Your task to perform on an android device: turn off data saver in the chrome app Image 0: 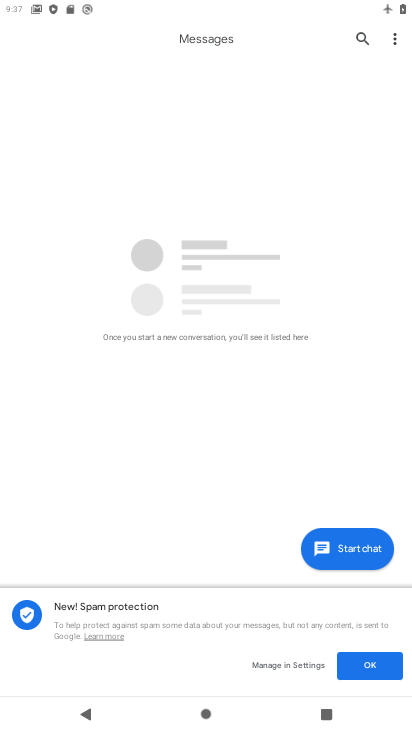
Step 0: press home button
Your task to perform on an android device: turn off data saver in the chrome app Image 1: 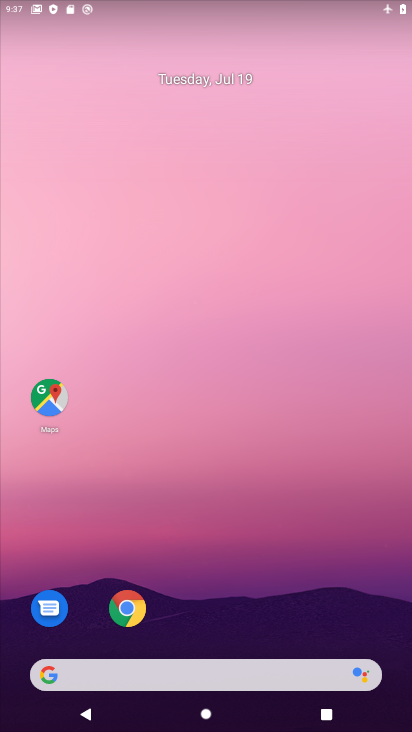
Step 1: drag from (295, 597) to (258, 108)
Your task to perform on an android device: turn off data saver in the chrome app Image 2: 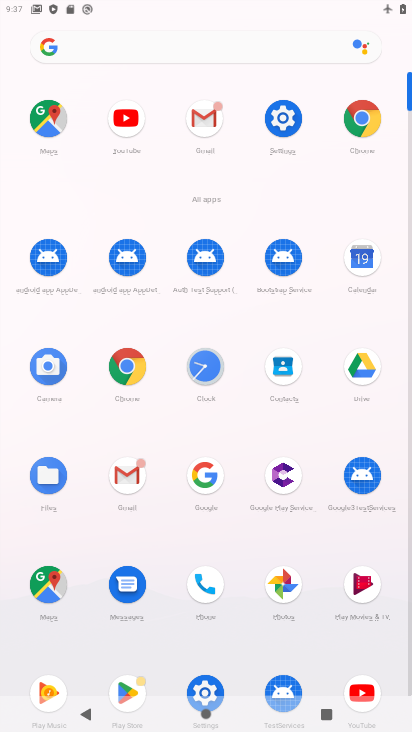
Step 2: click (365, 116)
Your task to perform on an android device: turn off data saver in the chrome app Image 3: 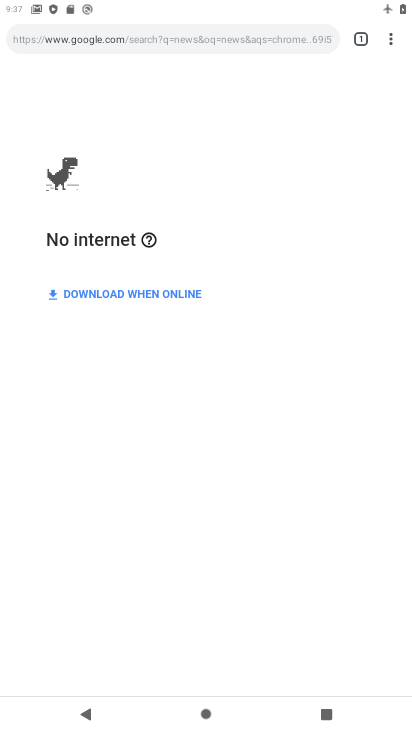
Step 3: drag from (396, 35) to (256, 439)
Your task to perform on an android device: turn off data saver in the chrome app Image 4: 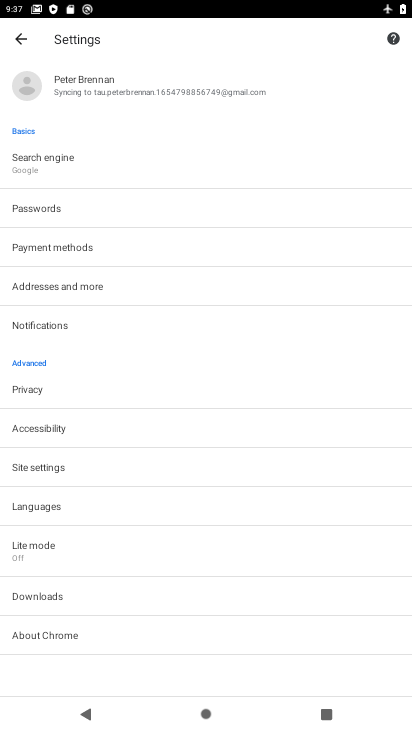
Step 4: click (55, 557)
Your task to perform on an android device: turn off data saver in the chrome app Image 5: 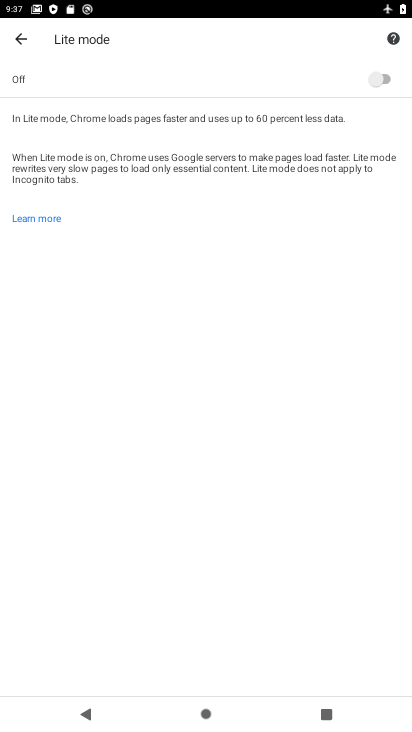
Step 5: task complete